Your task to perform on an android device: Open eBay Image 0: 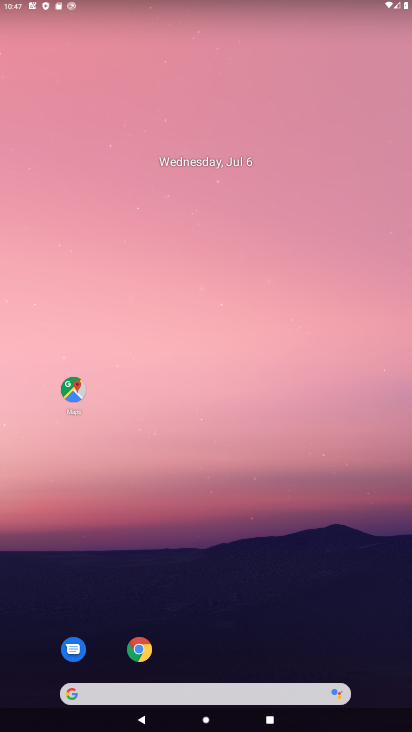
Step 0: drag from (392, 695) to (221, 2)
Your task to perform on an android device: Open eBay Image 1: 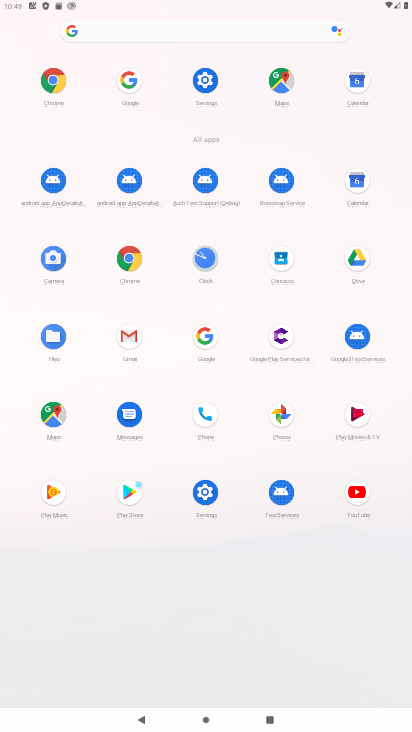
Step 1: click (207, 341)
Your task to perform on an android device: Open eBay Image 2: 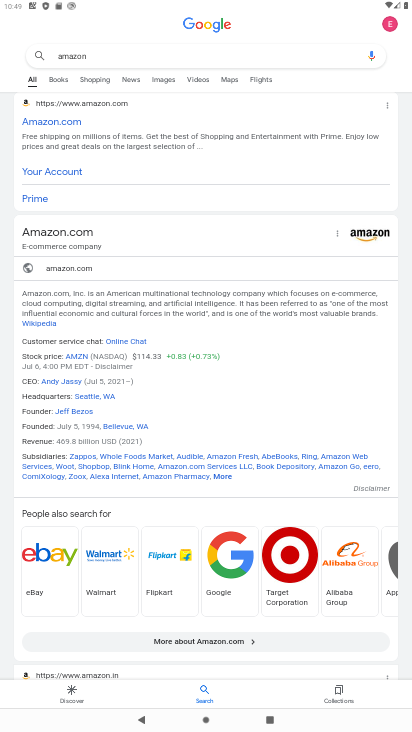
Step 2: press back button
Your task to perform on an android device: Open eBay Image 3: 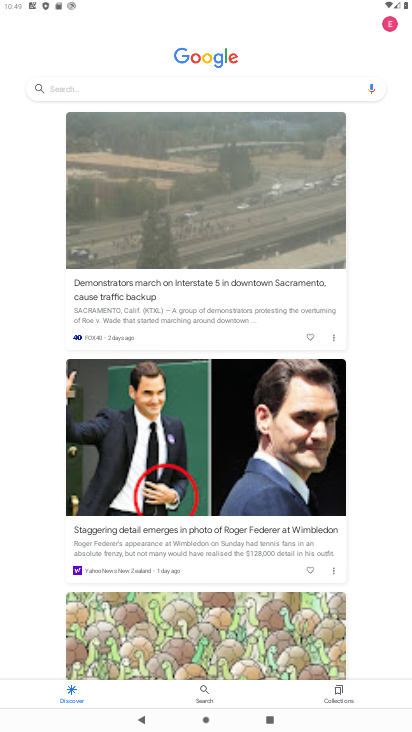
Step 3: click (93, 98)
Your task to perform on an android device: Open eBay Image 4: 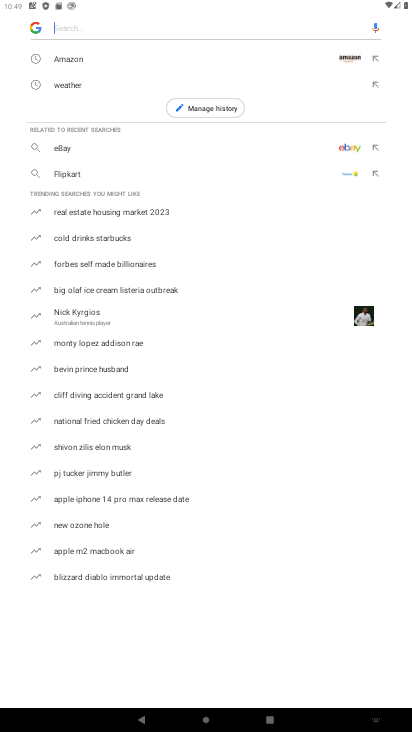
Step 4: click (76, 148)
Your task to perform on an android device: Open eBay Image 5: 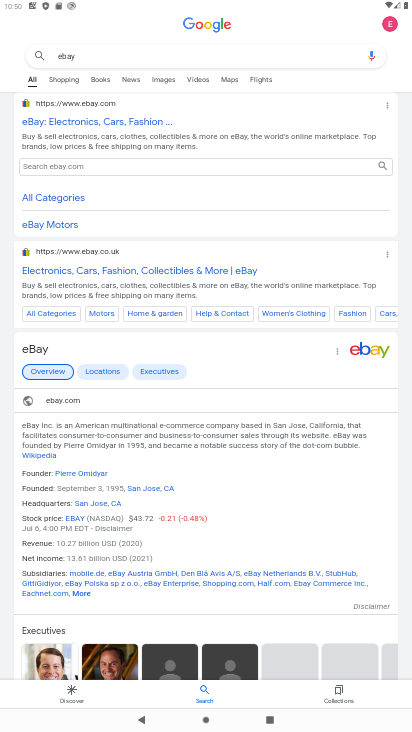
Step 5: task complete